Your task to perform on an android device: Show me productivity apps on the Play Store Image 0: 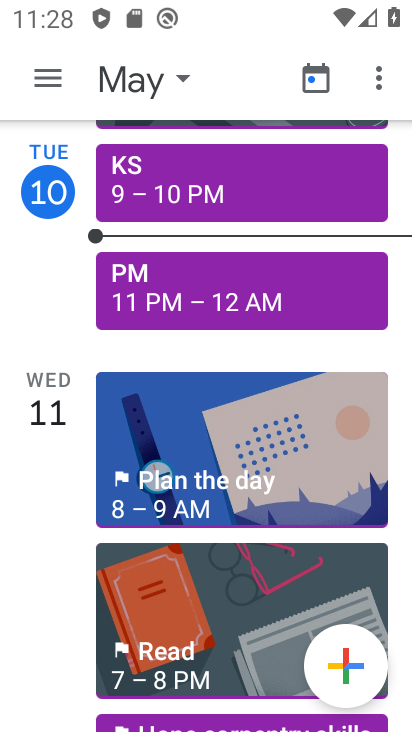
Step 0: press home button
Your task to perform on an android device: Show me productivity apps on the Play Store Image 1: 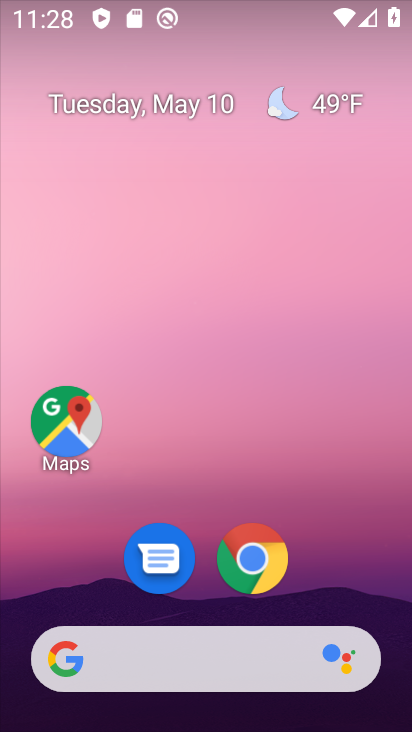
Step 1: drag from (334, 501) to (248, 11)
Your task to perform on an android device: Show me productivity apps on the Play Store Image 2: 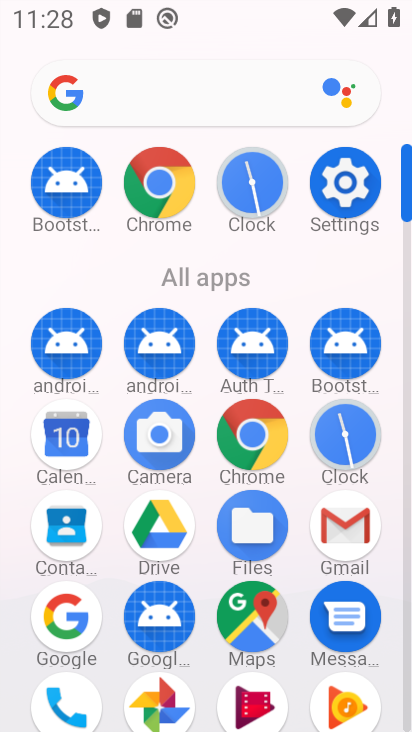
Step 2: click (405, 723)
Your task to perform on an android device: Show me productivity apps on the Play Store Image 3: 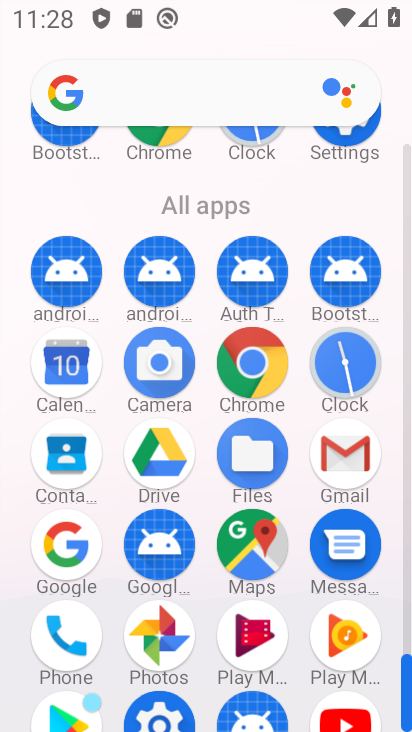
Step 3: click (69, 704)
Your task to perform on an android device: Show me productivity apps on the Play Store Image 4: 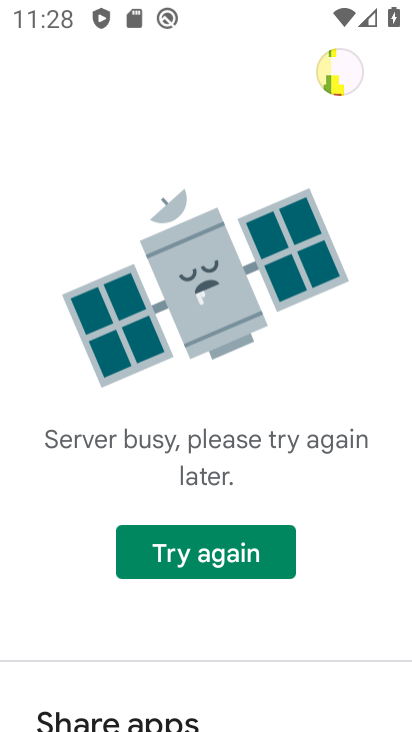
Step 4: task complete